Your task to perform on an android device: Toggle the flashlight Image 0: 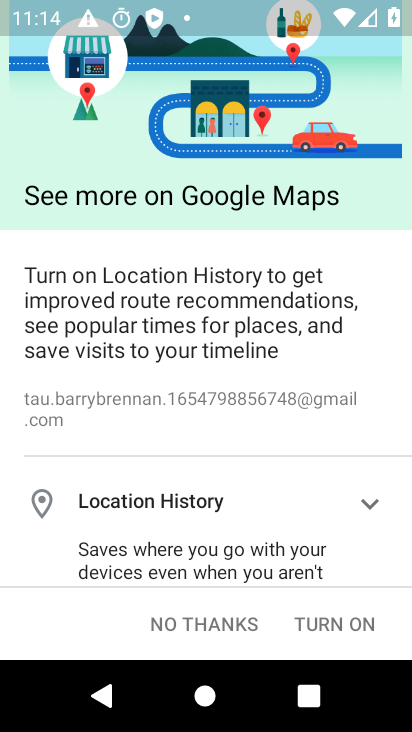
Step 0: drag from (197, 18) to (205, 458)
Your task to perform on an android device: Toggle the flashlight Image 1: 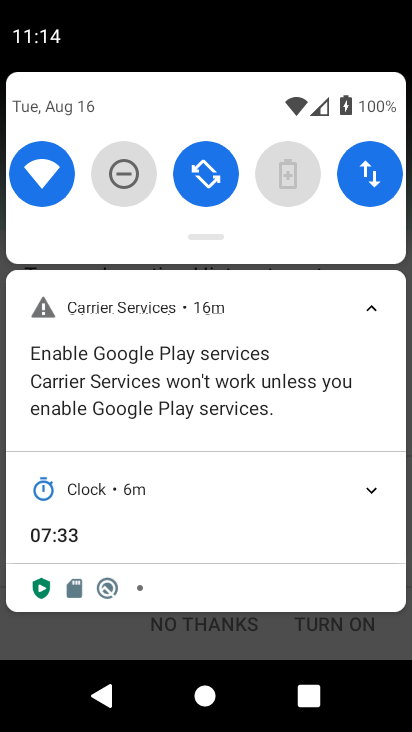
Step 1: drag from (181, 224) to (201, 585)
Your task to perform on an android device: Toggle the flashlight Image 2: 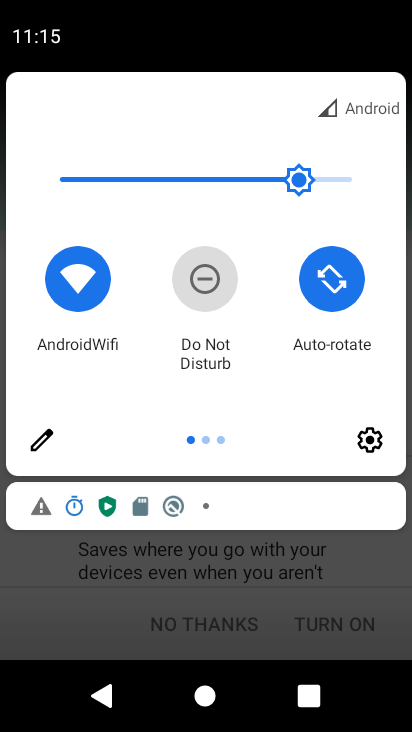
Step 2: click (45, 448)
Your task to perform on an android device: Toggle the flashlight Image 3: 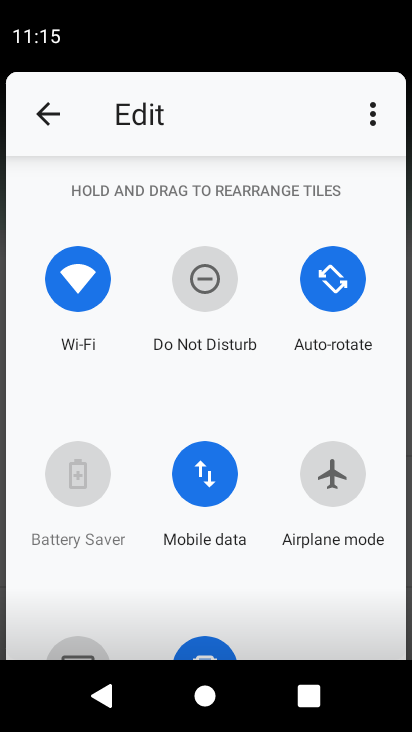
Step 3: task complete